Your task to perform on an android device: clear history in the chrome app Image 0: 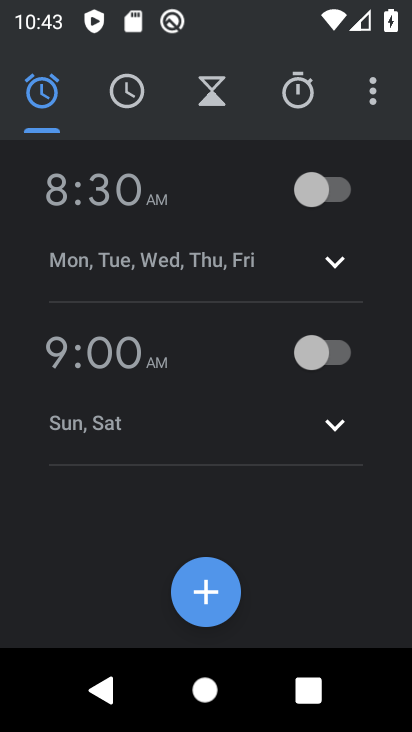
Step 0: press home button
Your task to perform on an android device: clear history in the chrome app Image 1: 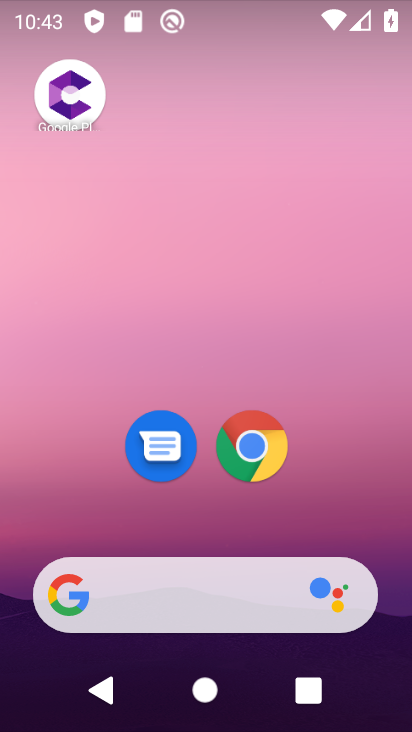
Step 1: drag from (387, 517) to (385, 173)
Your task to perform on an android device: clear history in the chrome app Image 2: 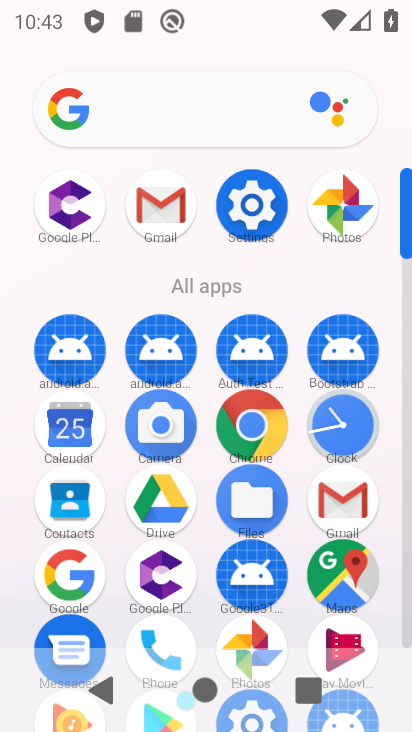
Step 2: click (265, 431)
Your task to perform on an android device: clear history in the chrome app Image 3: 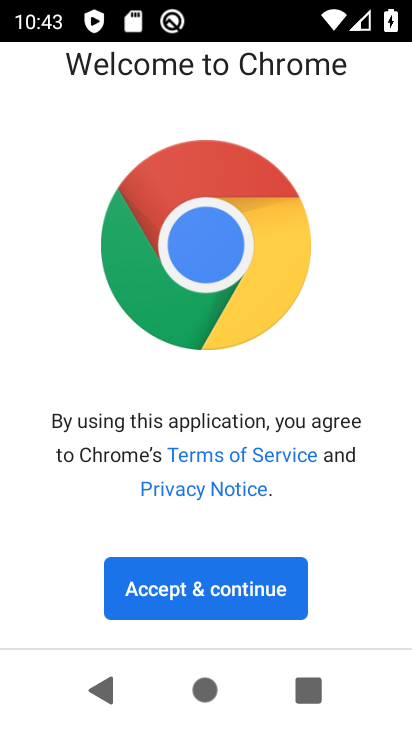
Step 3: click (232, 589)
Your task to perform on an android device: clear history in the chrome app Image 4: 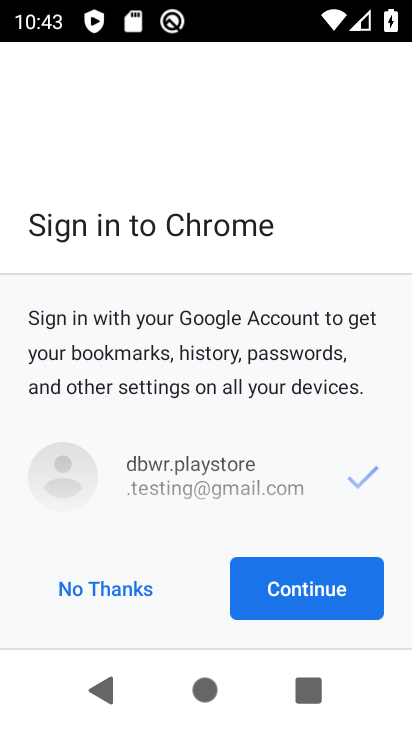
Step 4: click (294, 583)
Your task to perform on an android device: clear history in the chrome app Image 5: 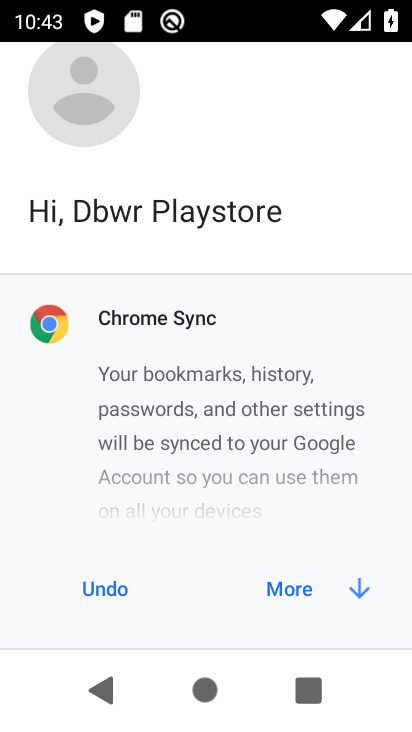
Step 5: click (294, 583)
Your task to perform on an android device: clear history in the chrome app Image 6: 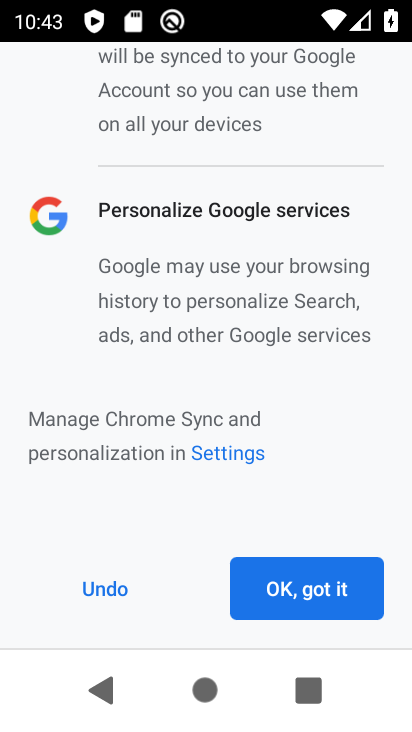
Step 6: click (294, 583)
Your task to perform on an android device: clear history in the chrome app Image 7: 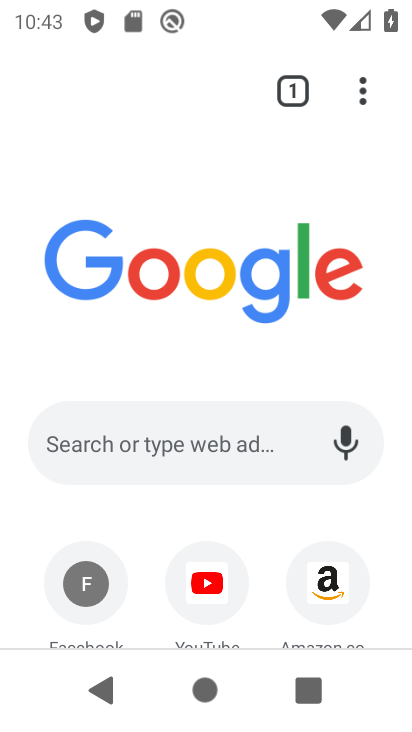
Step 7: click (358, 107)
Your task to perform on an android device: clear history in the chrome app Image 8: 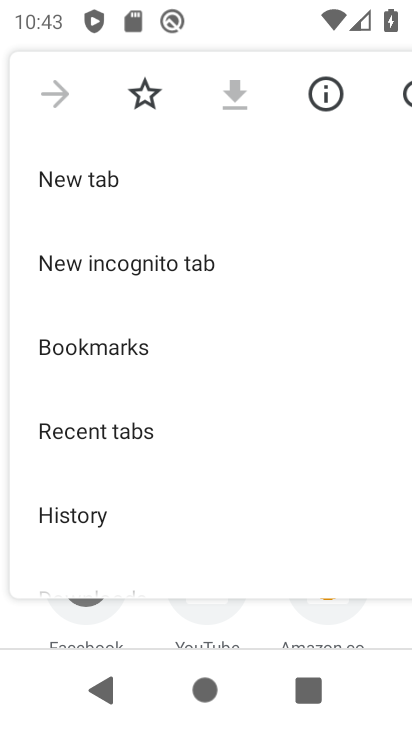
Step 8: click (94, 515)
Your task to perform on an android device: clear history in the chrome app Image 9: 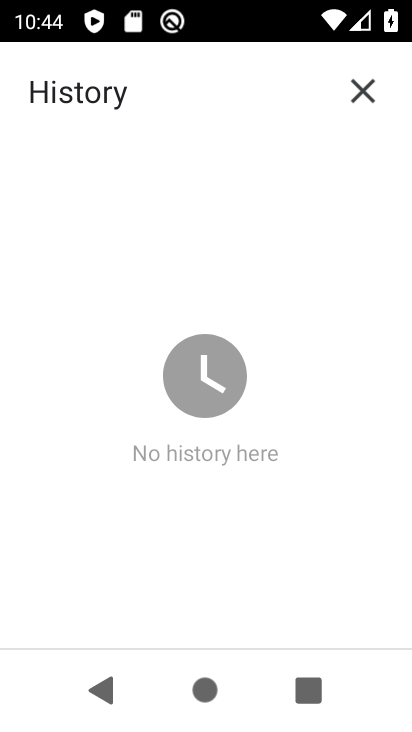
Step 9: task complete